Your task to perform on an android device: turn pop-ups off in chrome Image 0: 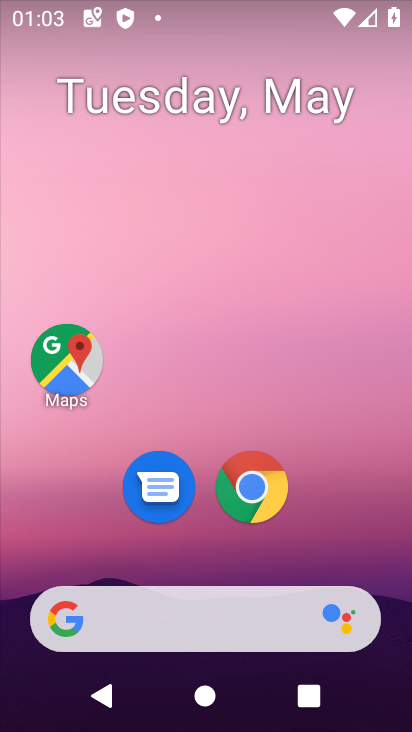
Step 0: click (260, 478)
Your task to perform on an android device: turn pop-ups off in chrome Image 1: 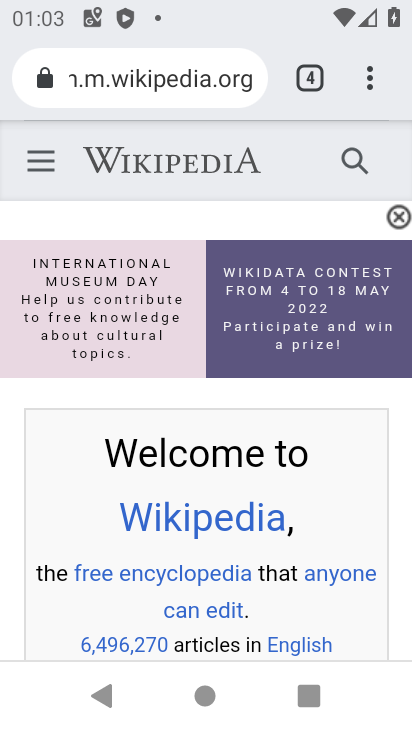
Step 1: click (378, 84)
Your task to perform on an android device: turn pop-ups off in chrome Image 2: 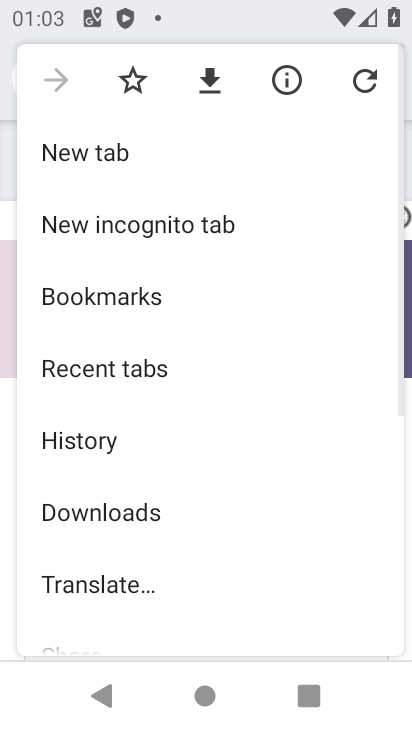
Step 2: drag from (245, 554) to (232, 239)
Your task to perform on an android device: turn pop-ups off in chrome Image 3: 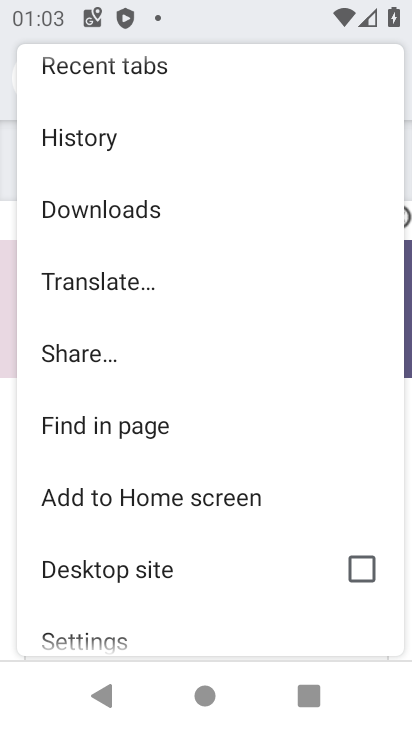
Step 3: click (151, 633)
Your task to perform on an android device: turn pop-ups off in chrome Image 4: 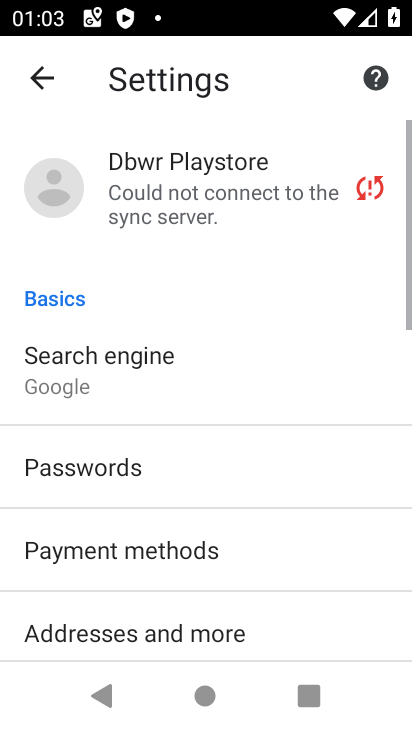
Step 4: drag from (198, 499) to (198, 176)
Your task to perform on an android device: turn pop-ups off in chrome Image 5: 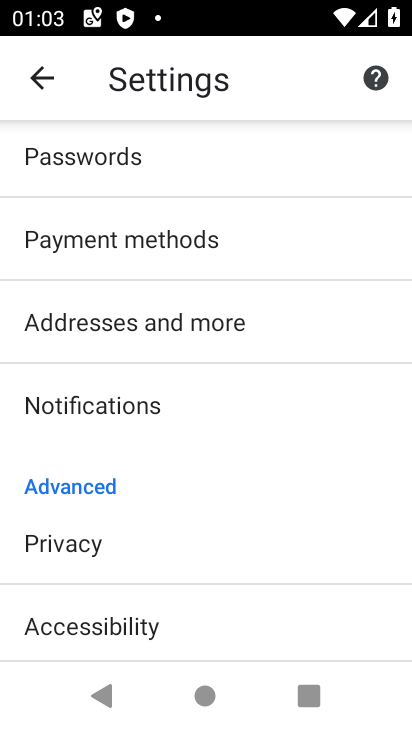
Step 5: drag from (186, 594) to (199, 357)
Your task to perform on an android device: turn pop-ups off in chrome Image 6: 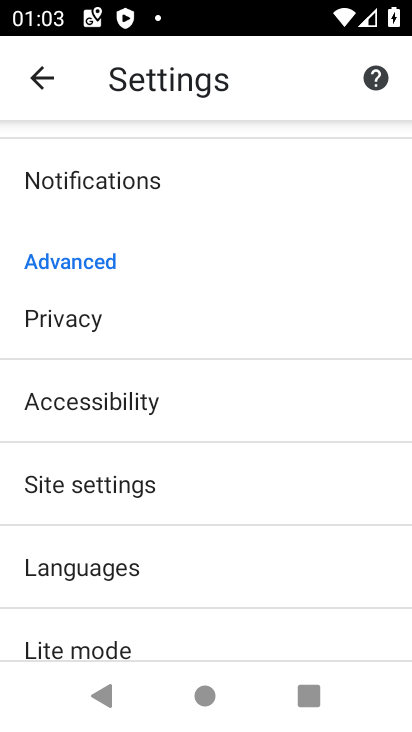
Step 6: click (186, 483)
Your task to perform on an android device: turn pop-ups off in chrome Image 7: 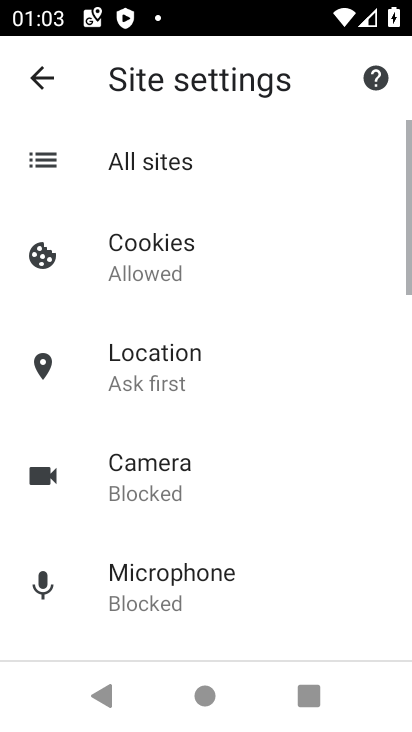
Step 7: drag from (230, 594) to (272, 170)
Your task to perform on an android device: turn pop-ups off in chrome Image 8: 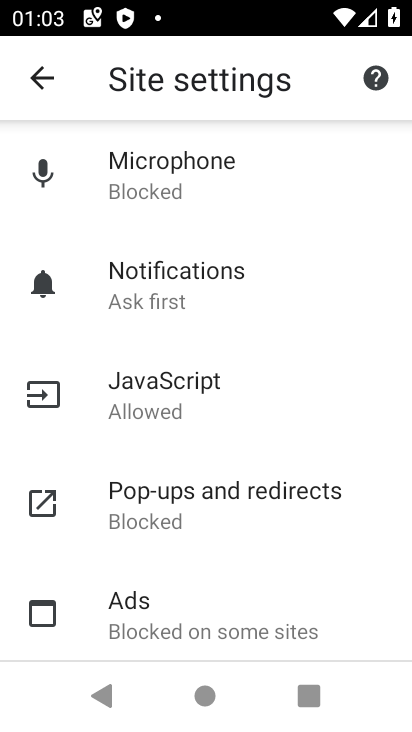
Step 8: click (282, 491)
Your task to perform on an android device: turn pop-ups off in chrome Image 9: 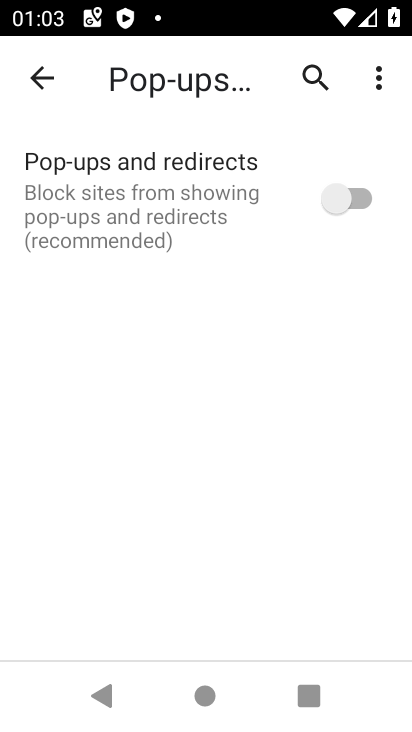
Step 9: task complete